Your task to perform on an android device: Open Chrome and go to the settings page Image 0: 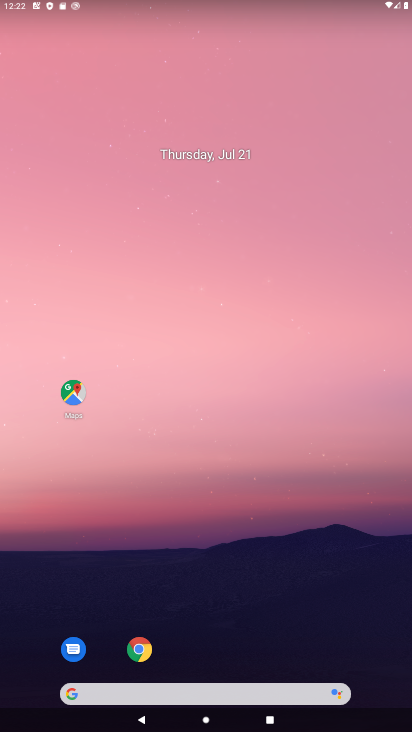
Step 0: click (138, 646)
Your task to perform on an android device: Open Chrome and go to the settings page Image 1: 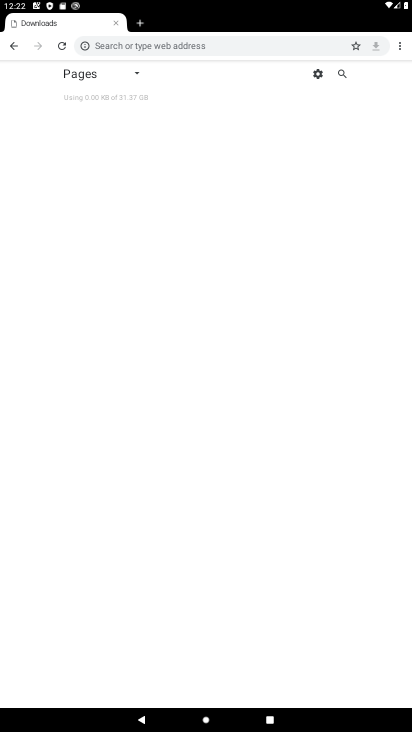
Step 1: click (397, 48)
Your task to perform on an android device: Open Chrome and go to the settings page Image 2: 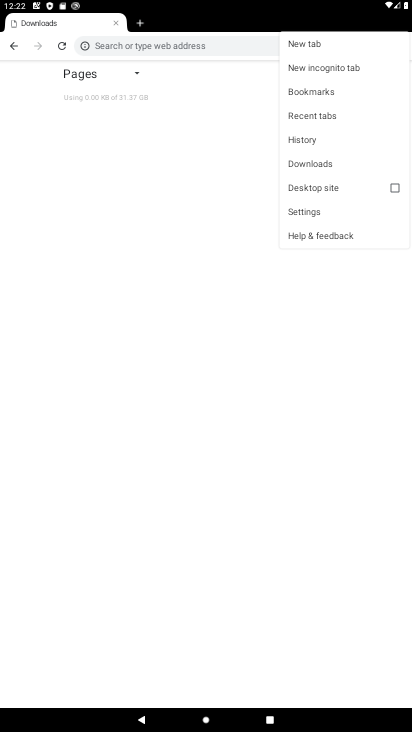
Step 2: click (310, 213)
Your task to perform on an android device: Open Chrome and go to the settings page Image 3: 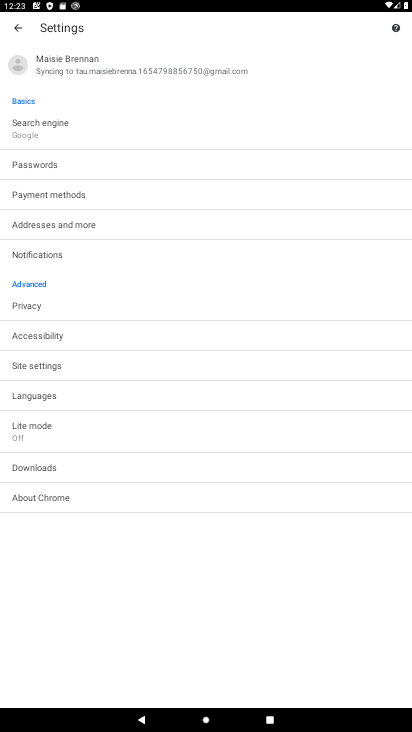
Step 3: task complete